Your task to perform on an android device: Search for seafood restaurants on Google Maps Image 0: 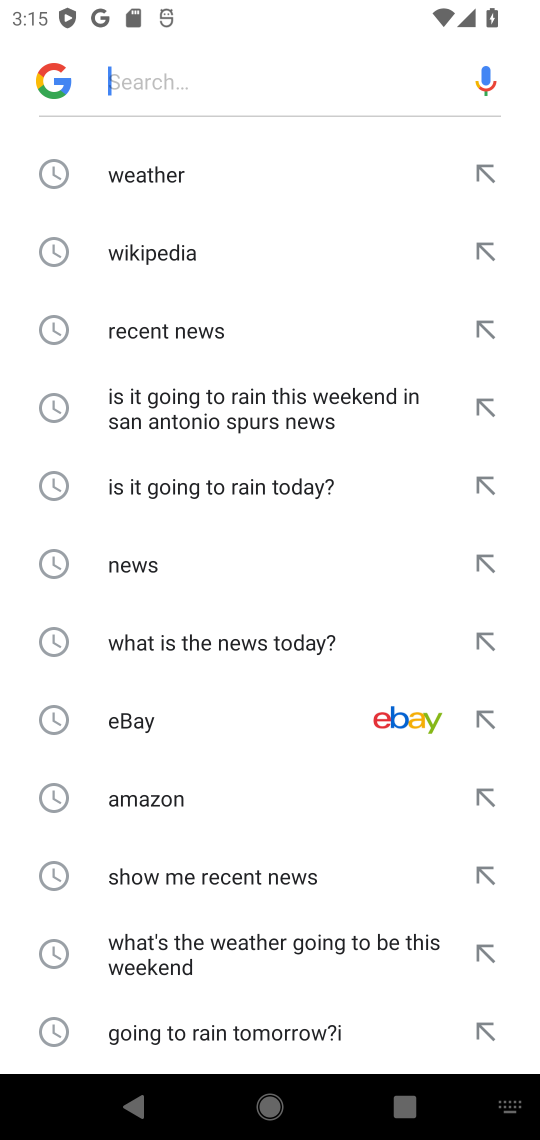
Step 0: press home button
Your task to perform on an android device: Search for seafood restaurants on Google Maps Image 1: 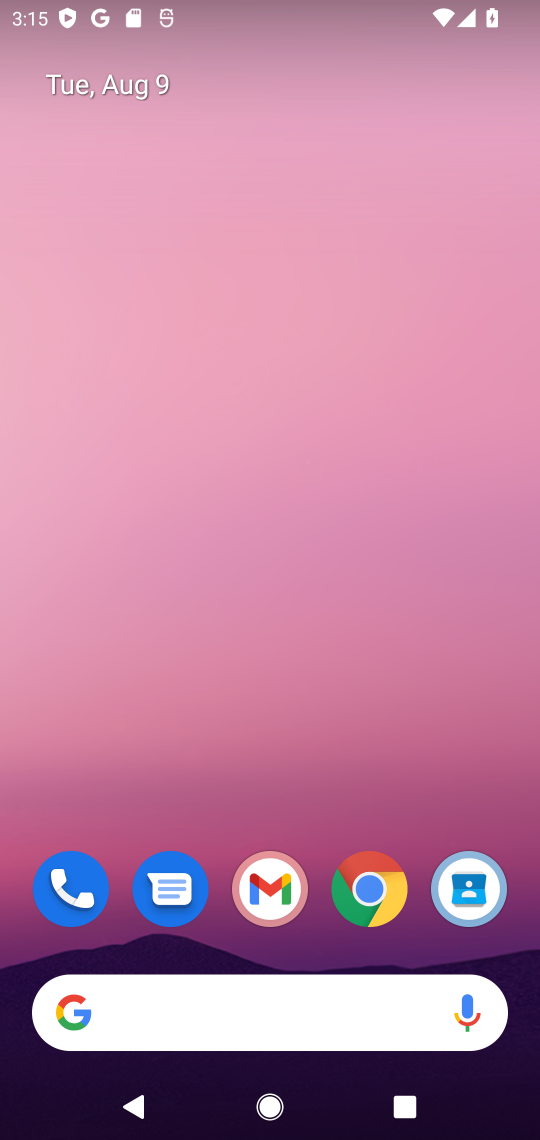
Step 1: drag from (313, 737) to (363, 2)
Your task to perform on an android device: Search for seafood restaurants on Google Maps Image 2: 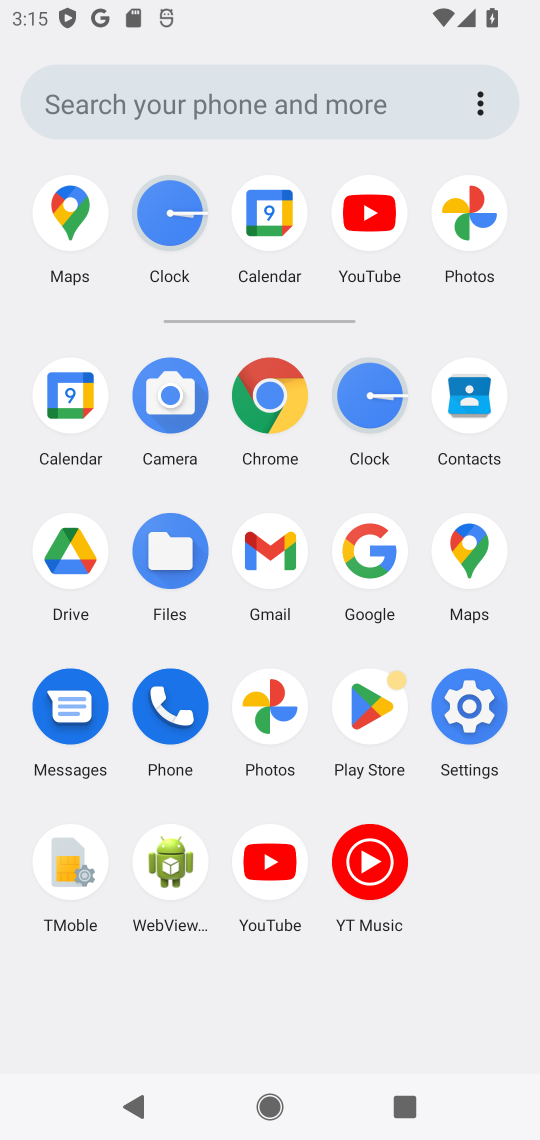
Step 2: click (468, 533)
Your task to perform on an android device: Search for seafood restaurants on Google Maps Image 3: 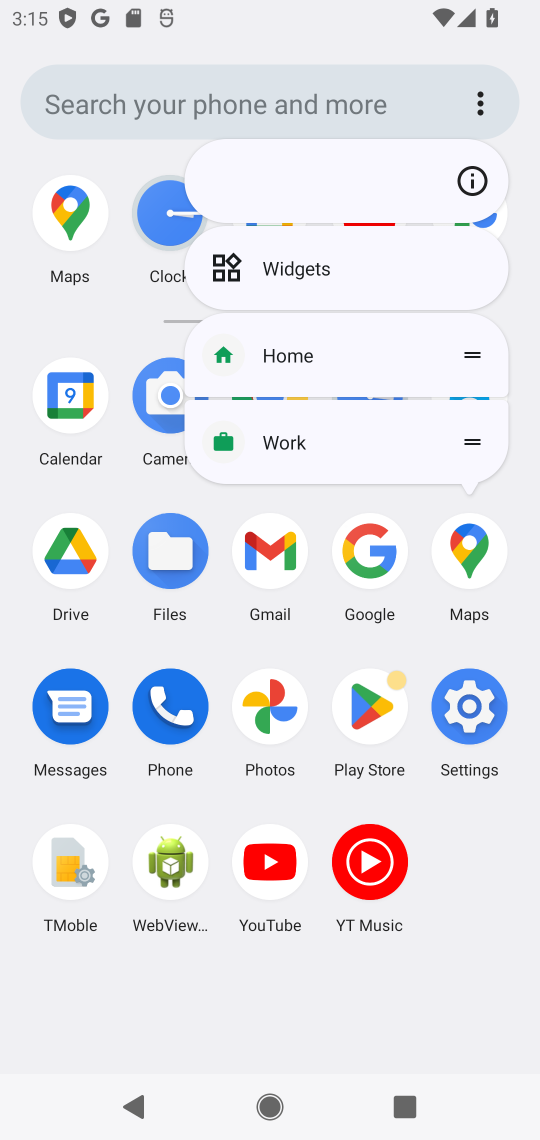
Step 3: click (469, 550)
Your task to perform on an android device: Search for seafood restaurants on Google Maps Image 4: 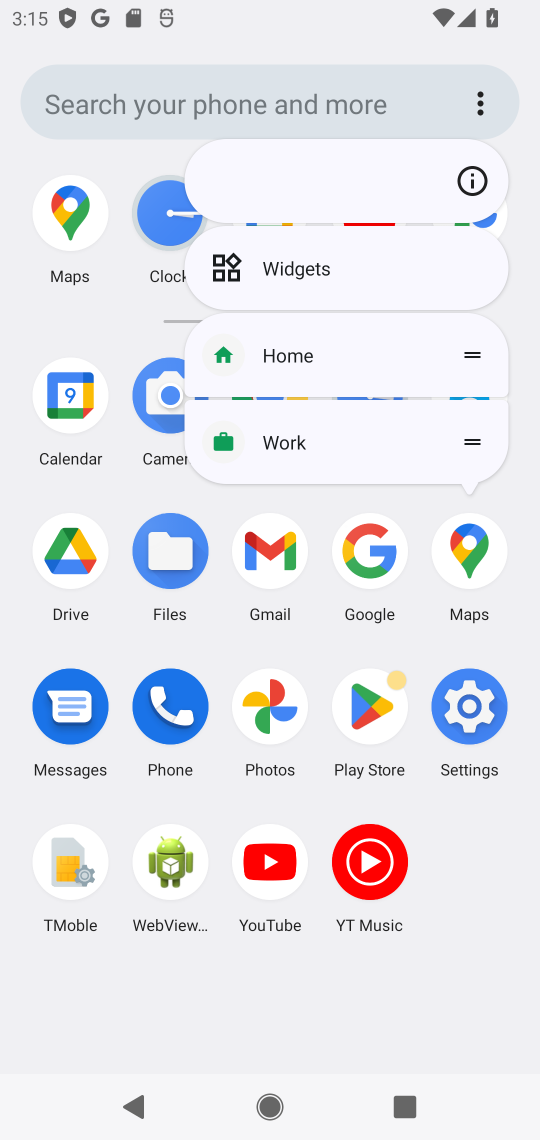
Step 4: click (474, 554)
Your task to perform on an android device: Search for seafood restaurants on Google Maps Image 5: 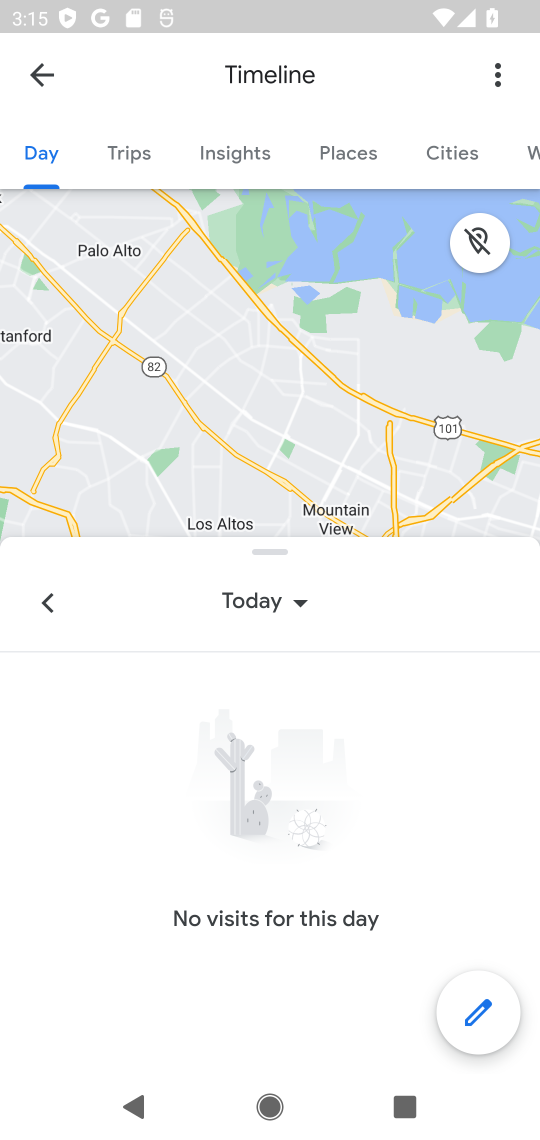
Step 5: click (39, 73)
Your task to perform on an android device: Search for seafood restaurants on Google Maps Image 6: 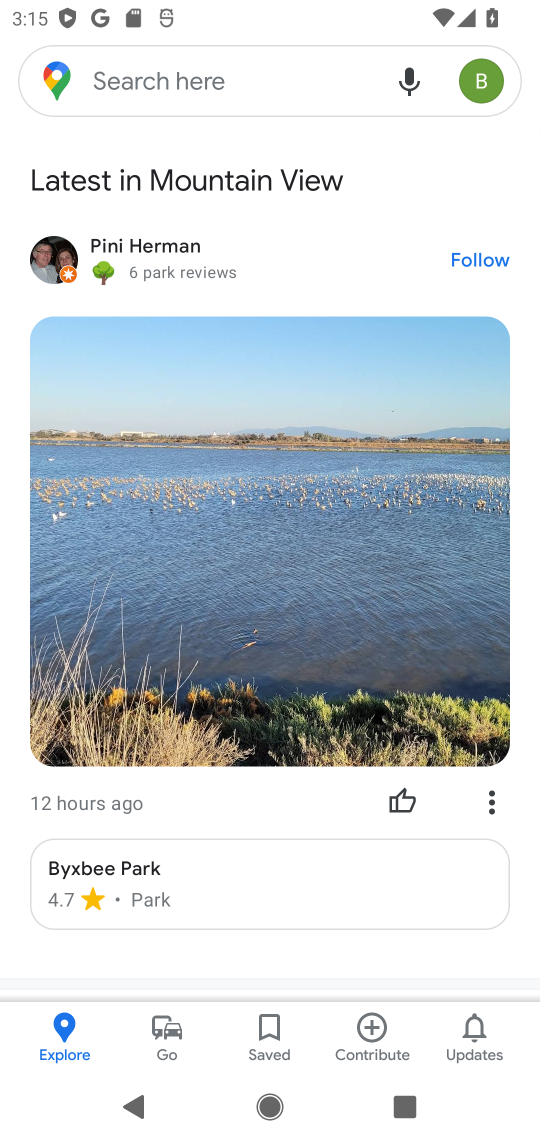
Step 6: click (149, 76)
Your task to perform on an android device: Search for seafood restaurants on Google Maps Image 7: 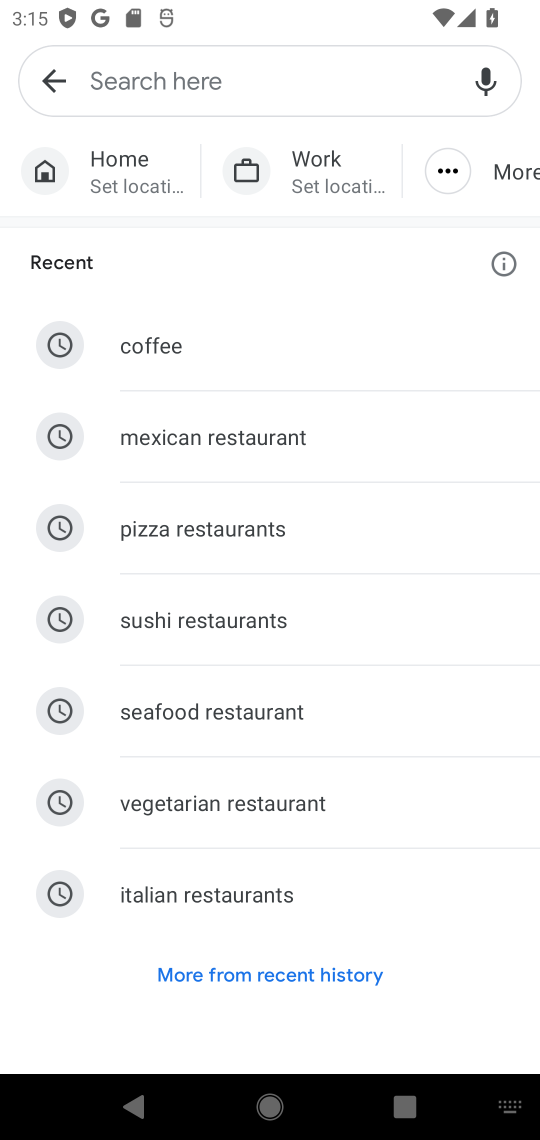
Step 7: click (230, 702)
Your task to perform on an android device: Search for seafood restaurants on Google Maps Image 8: 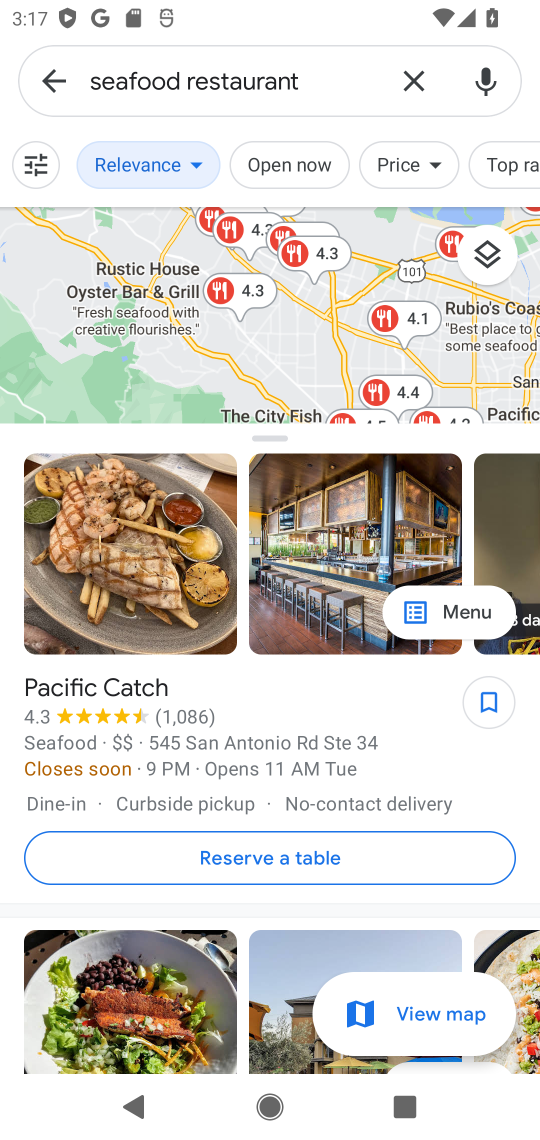
Step 8: task complete